Your task to perform on an android device: Check the news Image 0: 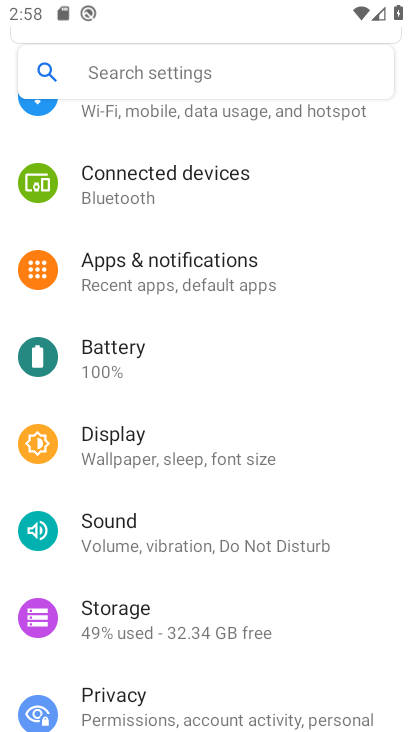
Step 0: press home button
Your task to perform on an android device: Check the news Image 1: 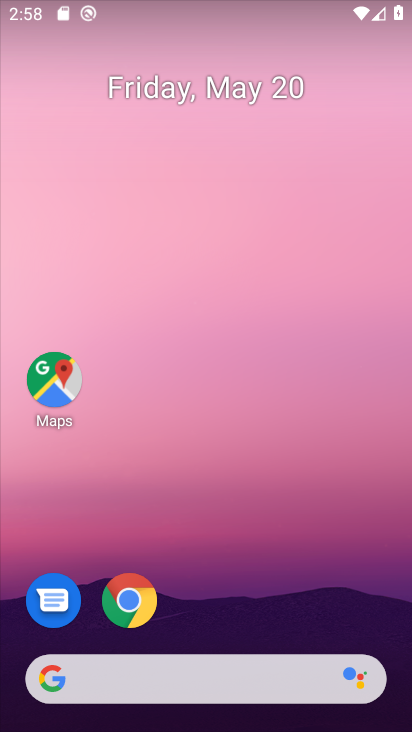
Step 1: task complete